Your task to perform on an android device: check out phone information Image 0: 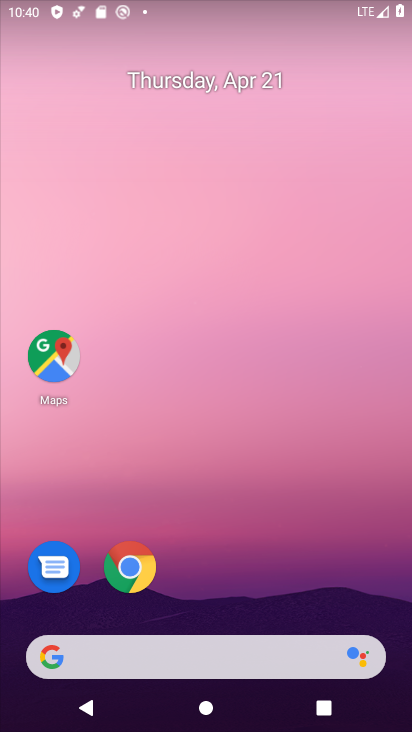
Step 0: drag from (235, 547) to (333, 36)
Your task to perform on an android device: check out phone information Image 1: 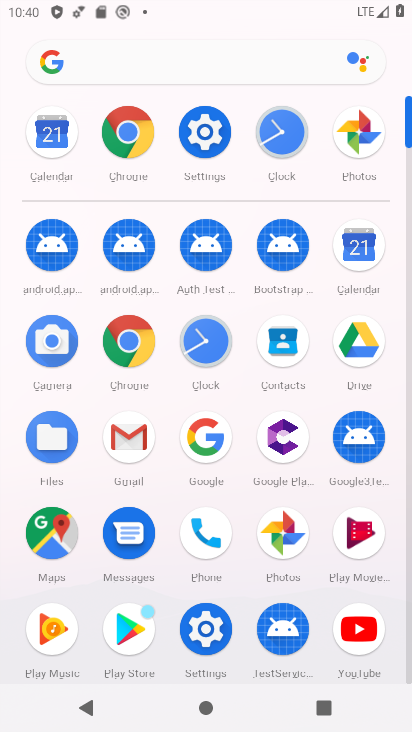
Step 1: click (208, 162)
Your task to perform on an android device: check out phone information Image 2: 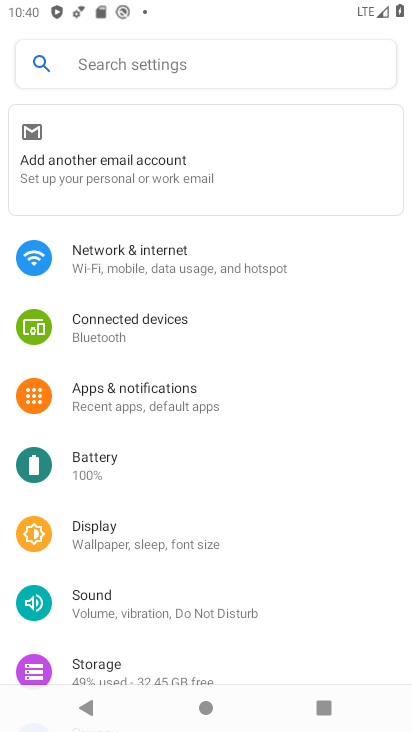
Step 2: drag from (133, 588) to (188, 194)
Your task to perform on an android device: check out phone information Image 3: 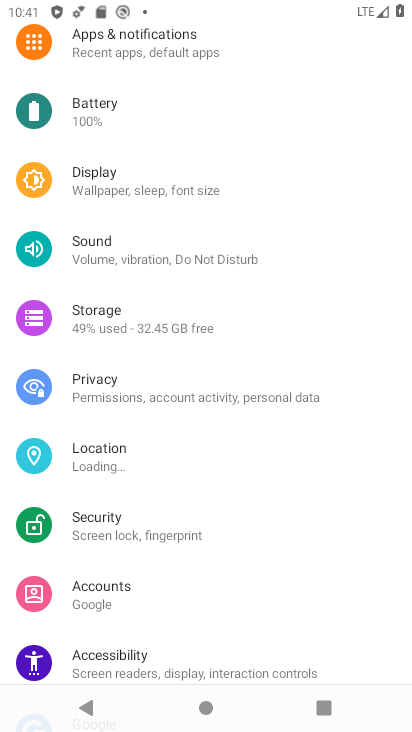
Step 3: drag from (170, 629) to (252, 129)
Your task to perform on an android device: check out phone information Image 4: 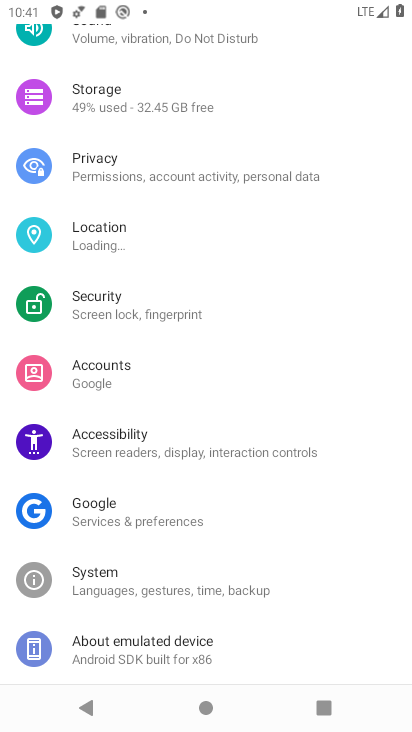
Step 4: drag from (183, 620) to (190, 327)
Your task to perform on an android device: check out phone information Image 5: 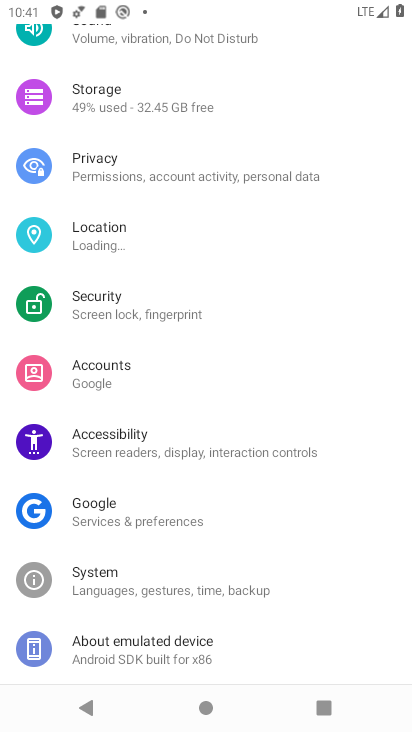
Step 5: click (132, 642)
Your task to perform on an android device: check out phone information Image 6: 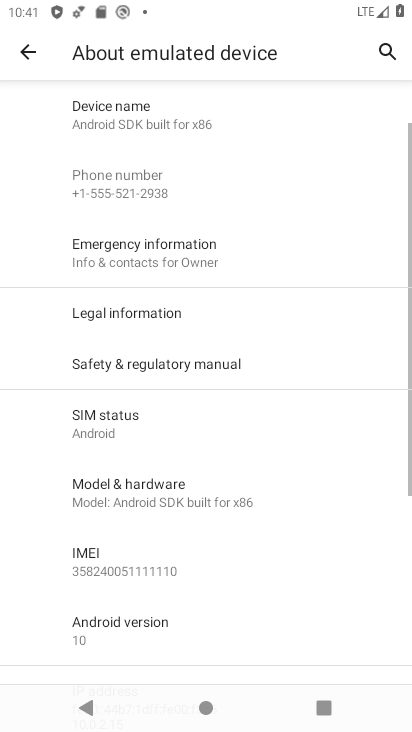
Step 6: task complete